Your task to perform on an android device: open chrome privacy settings Image 0: 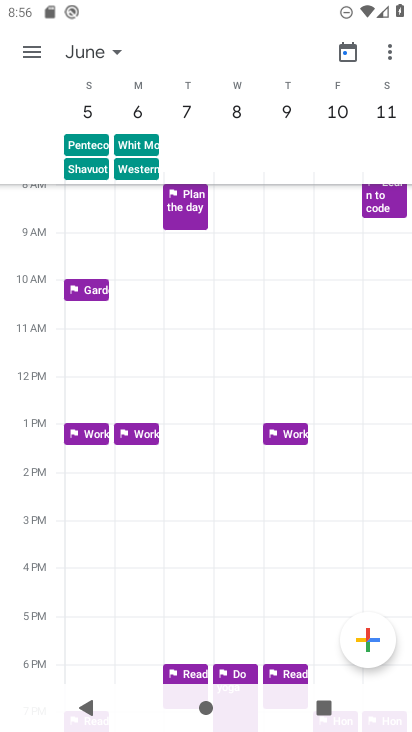
Step 0: press home button
Your task to perform on an android device: open chrome privacy settings Image 1: 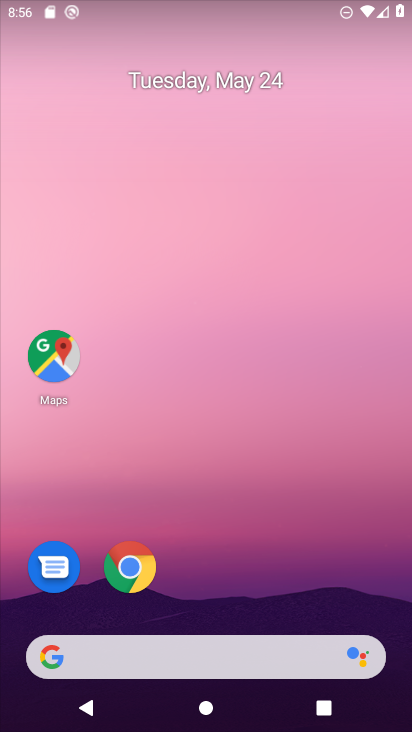
Step 1: drag from (173, 658) to (318, 105)
Your task to perform on an android device: open chrome privacy settings Image 2: 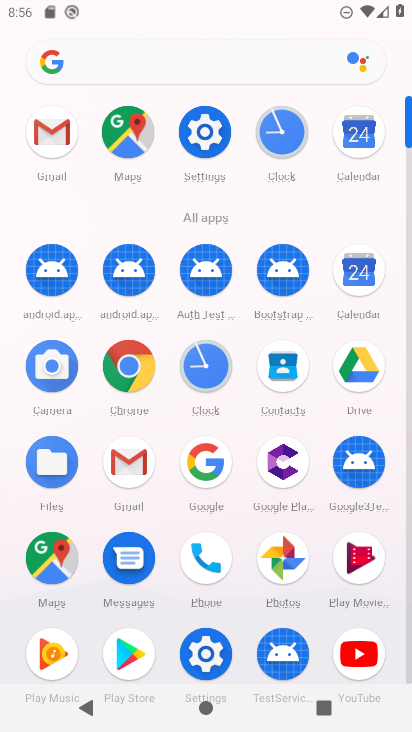
Step 2: click (127, 378)
Your task to perform on an android device: open chrome privacy settings Image 3: 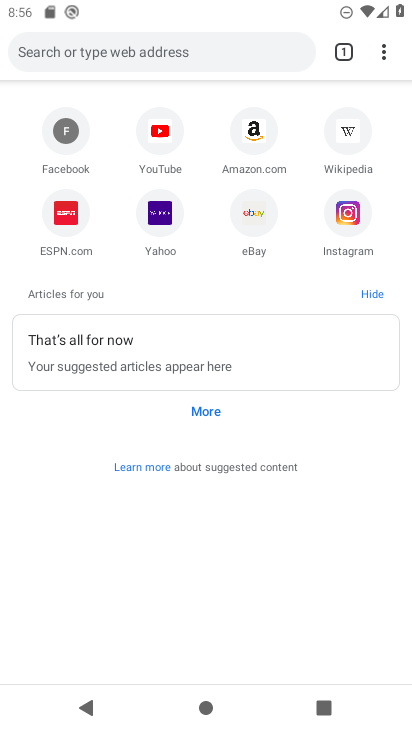
Step 3: drag from (381, 48) to (239, 427)
Your task to perform on an android device: open chrome privacy settings Image 4: 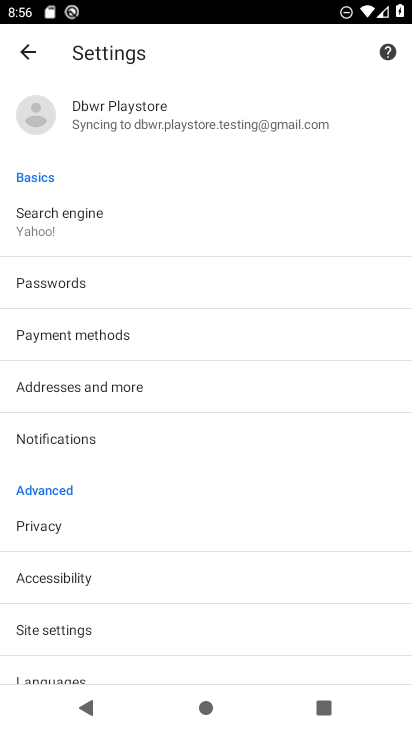
Step 4: click (29, 525)
Your task to perform on an android device: open chrome privacy settings Image 5: 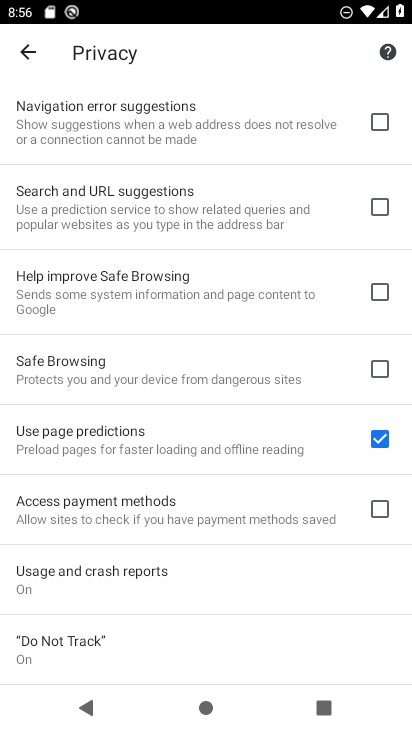
Step 5: task complete